Your task to perform on an android device: Open Android settings Image 0: 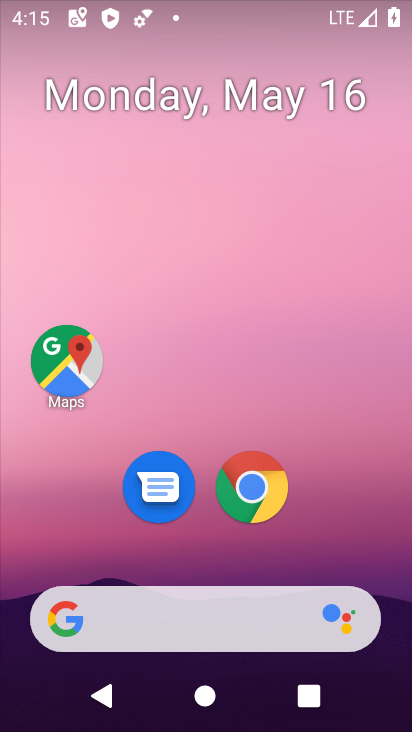
Step 0: drag from (386, 615) to (373, 224)
Your task to perform on an android device: Open Android settings Image 1: 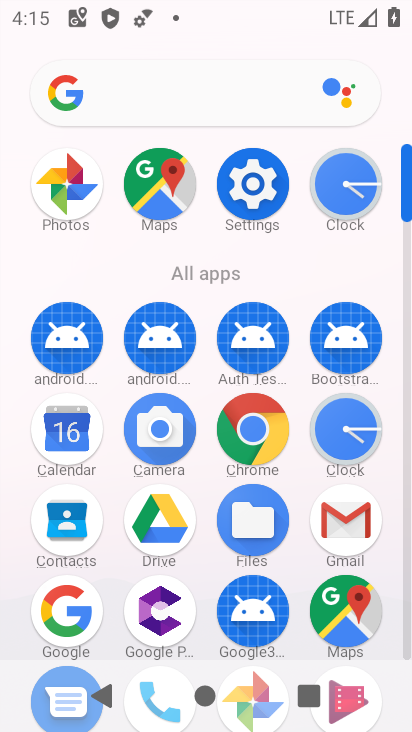
Step 1: click (406, 651)
Your task to perform on an android device: Open Android settings Image 2: 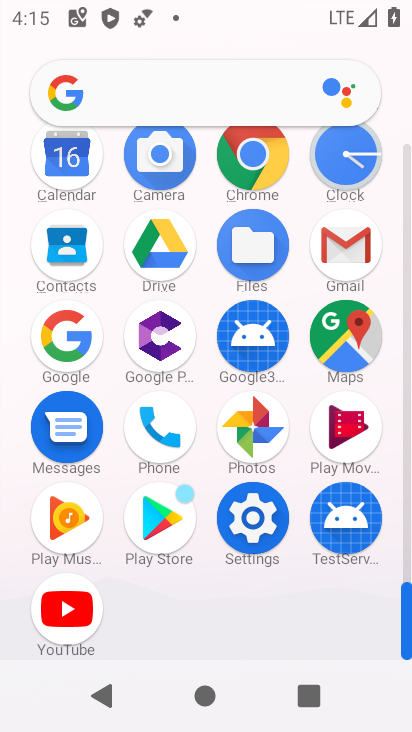
Step 2: click (248, 522)
Your task to perform on an android device: Open Android settings Image 3: 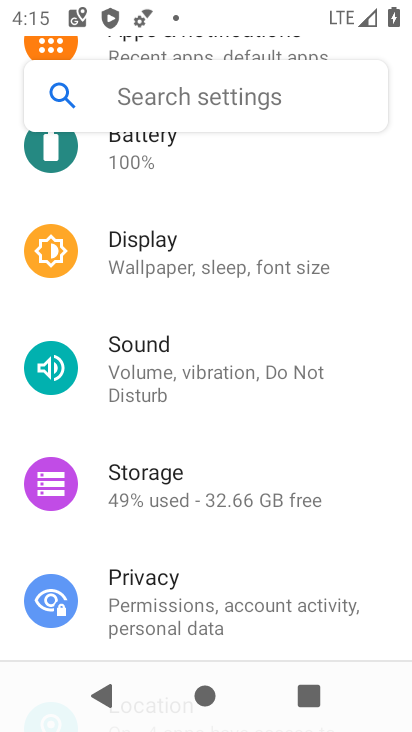
Step 3: drag from (282, 620) to (301, 192)
Your task to perform on an android device: Open Android settings Image 4: 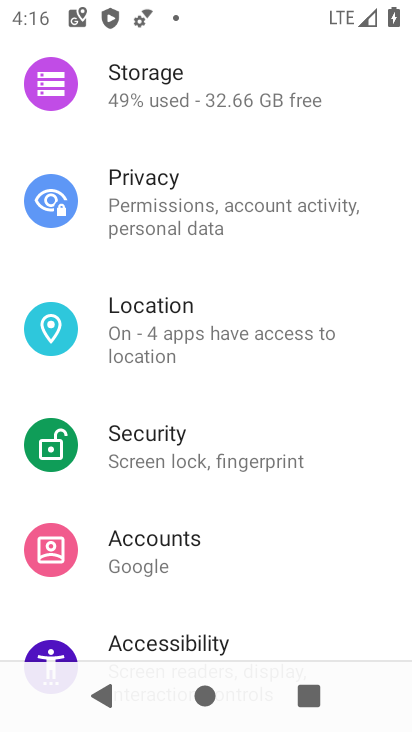
Step 4: drag from (322, 609) to (299, 184)
Your task to perform on an android device: Open Android settings Image 5: 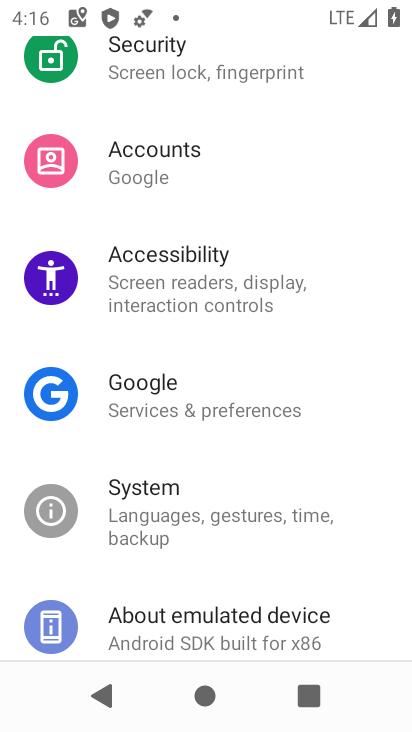
Step 5: click (195, 624)
Your task to perform on an android device: Open Android settings Image 6: 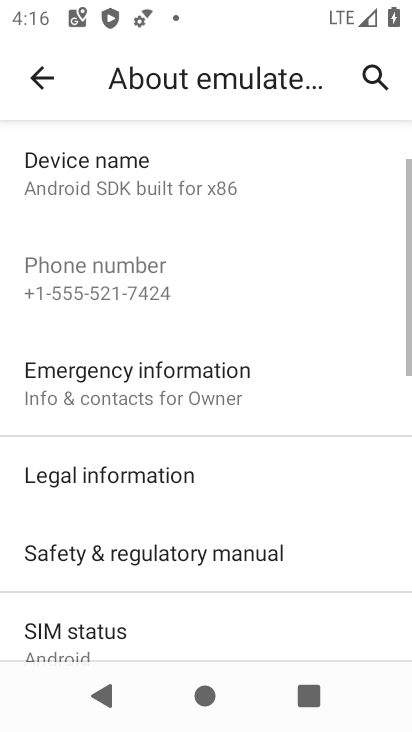
Step 6: task complete